Your task to perform on an android device: Open eBay Image 0: 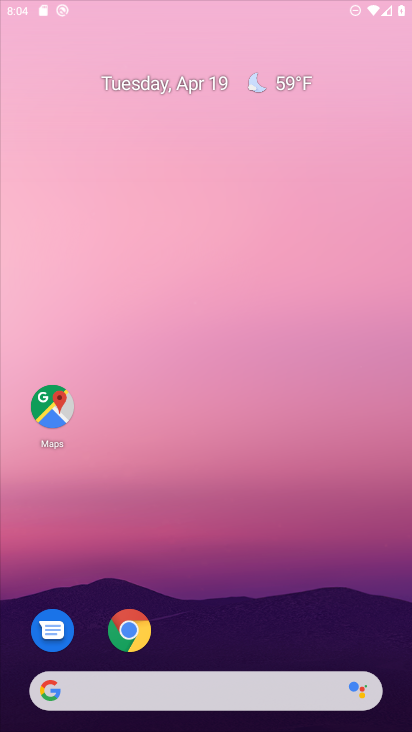
Step 0: click (129, 632)
Your task to perform on an android device: Open eBay Image 1: 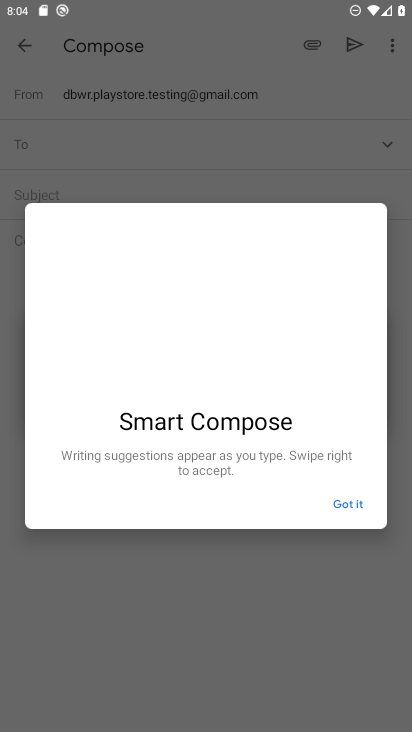
Step 1: click (334, 398)
Your task to perform on an android device: Open eBay Image 2: 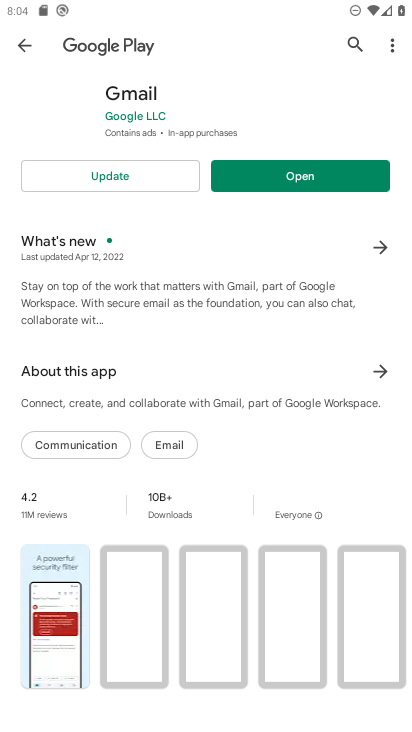
Step 2: press home button
Your task to perform on an android device: Open eBay Image 3: 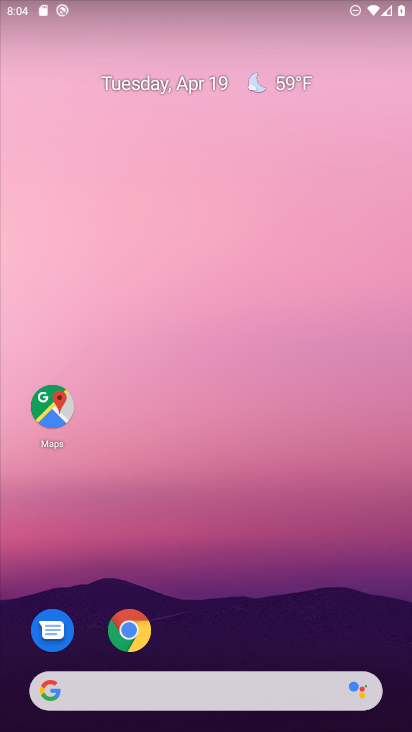
Step 3: click (125, 621)
Your task to perform on an android device: Open eBay Image 4: 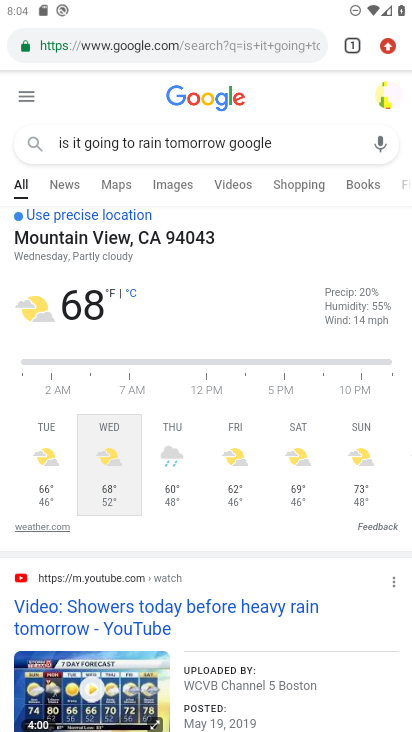
Step 4: click (391, 53)
Your task to perform on an android device: Open eBay Image 5: 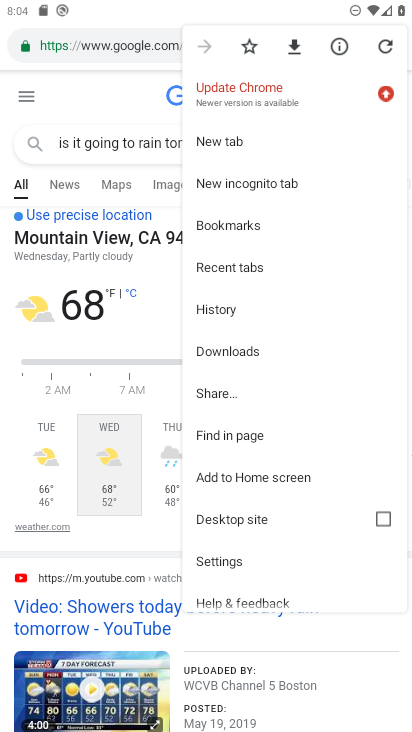
Step 5: click (222, 145)
Your task to perform on an android device: Open eBay Image 6: 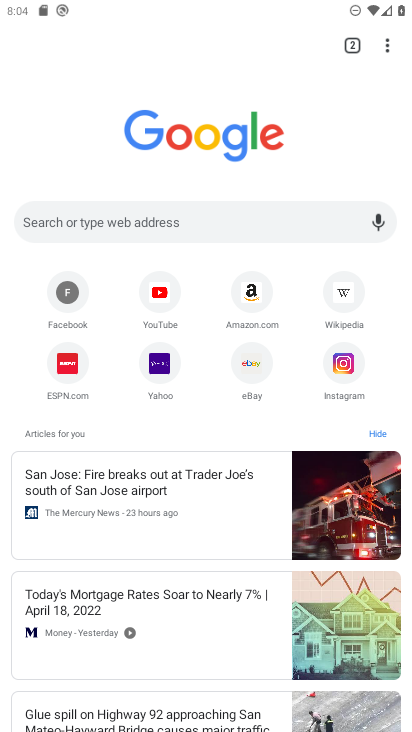
Step 6: click (253, 365)
Your task to perform on an android device: Open eBay Image 7: 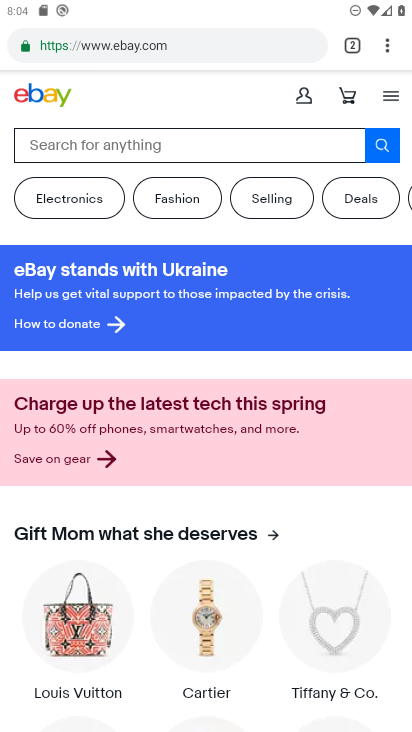
Step 7: task complete